Your task to perform on an android device: turn on priority inbox in the gmail app Image 0: 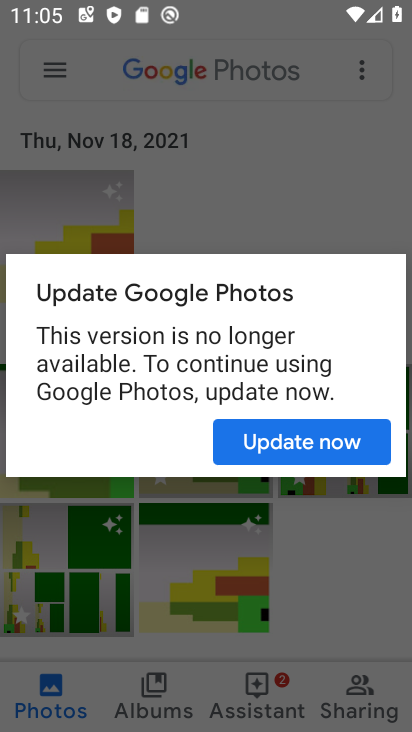
Step 0: press home button
Your task to perform on an android device: turn on priority inbox in the gmail app Image 1: 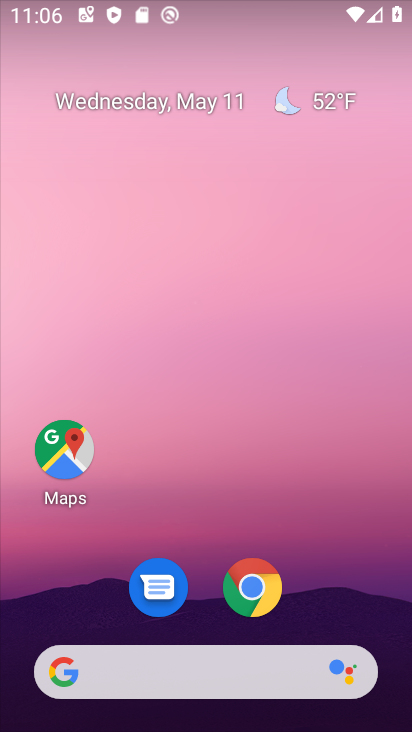
Step 1: drag from (208, 693) to (81, 235)
Your task to perform on an android device: turn on priority inbox in the gmail app Image 2: 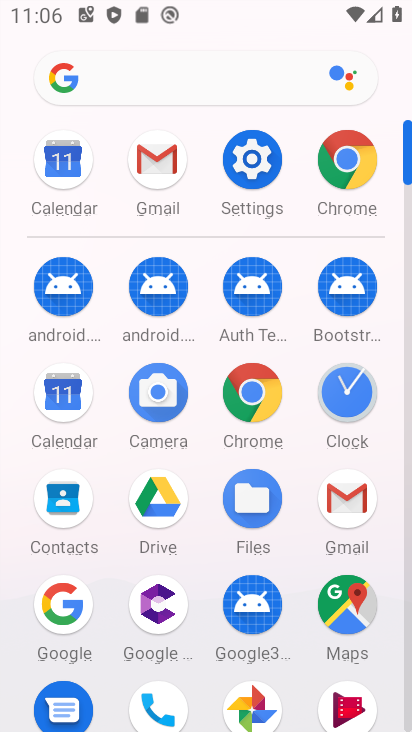
Step 2: click (354, 494)
Your task to perform on an android device: turn on priority inbox in the gmail app Image 3: 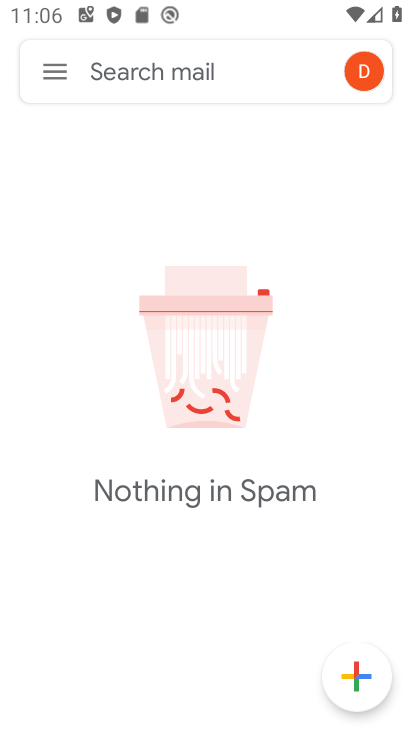
Step 3: click (65, 70)
Your task to perform on an android device: turn on priority inbox in the gmail app Image 4: 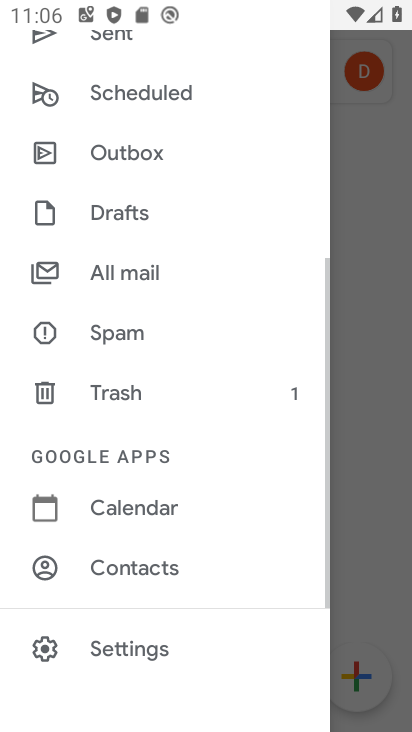
Step 4: click (110, 645)
Your task to perform on an android device: turn on priority inbox in the gmail app Image 5: 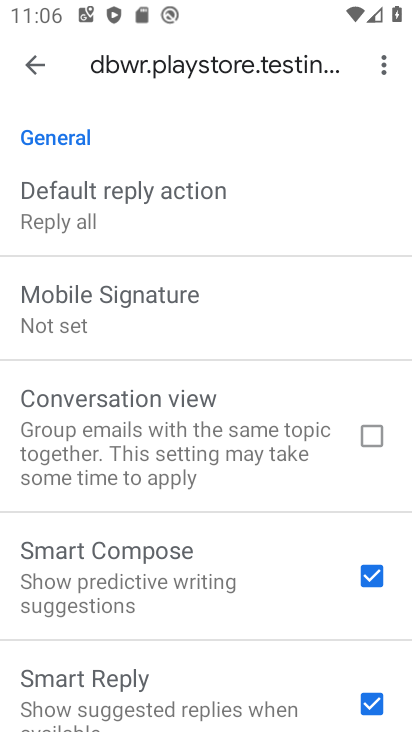
Step 5: drag from (143, 299) to (111, 701)
Your task to perform on an android device: turn on priority inbox in the gmail app Image 6: 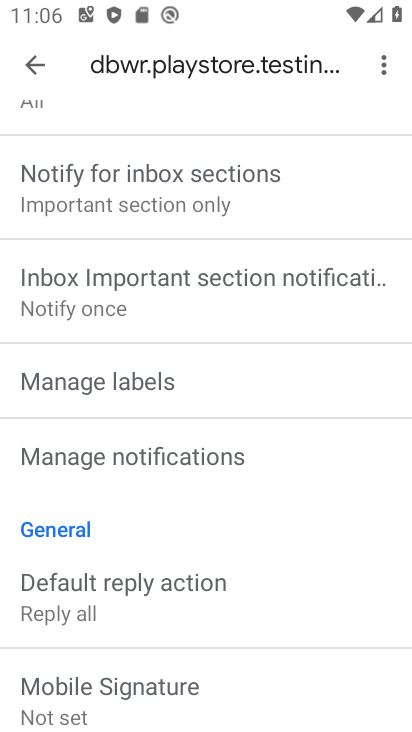
Step 6: drag from (109, 229) to (30, 694)
Your task to perform on an android device: turn on priority inbox in the gmail app Image 7: 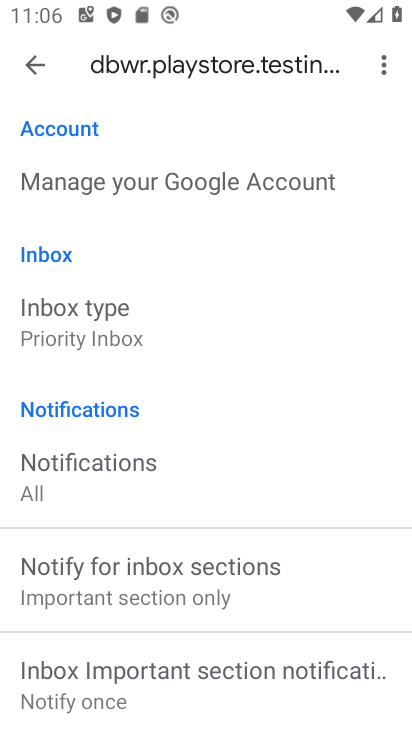
Step 7: click (112, 318)
Your task to perform on an android device: turn on priority inbox in the gmail app Image 8: 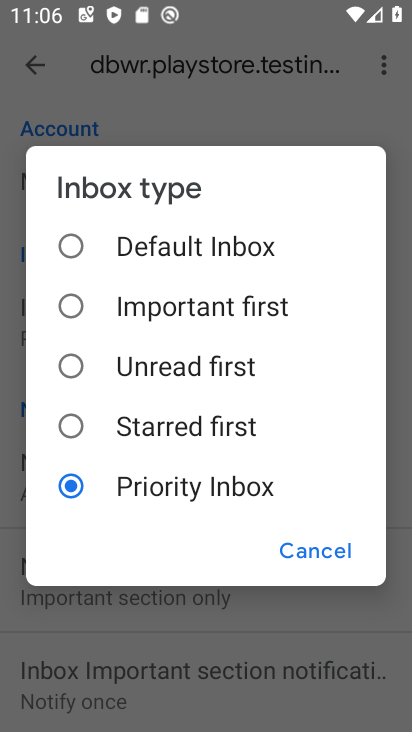
Step 8: task complete